Your task to perform on an android device: Turn off the flashlight Image 0: 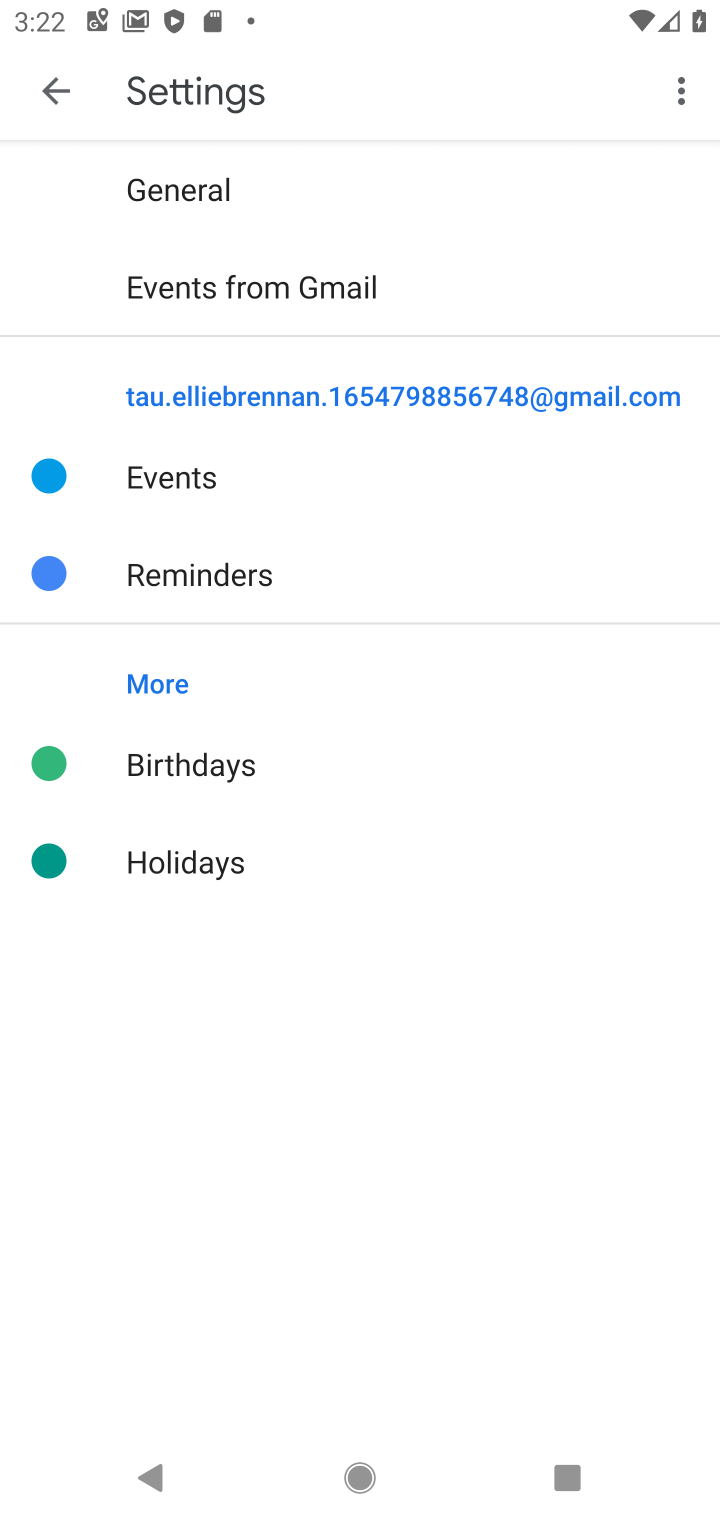
Step 0: press home button
Your task to perform on an android device: Turn off the flashlight Image 1: 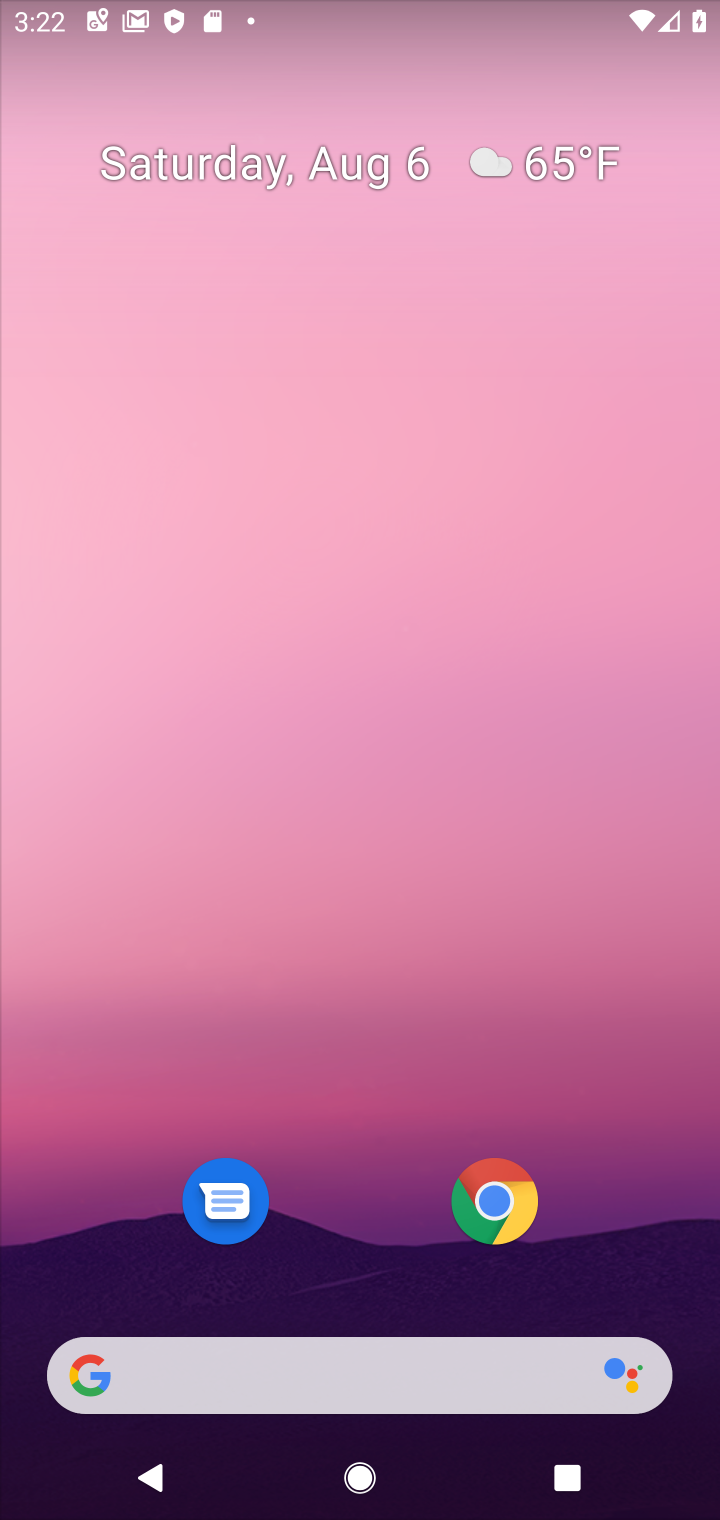
Step 1: task complete